Your task to perform on an android device: Go to settings Image 0: 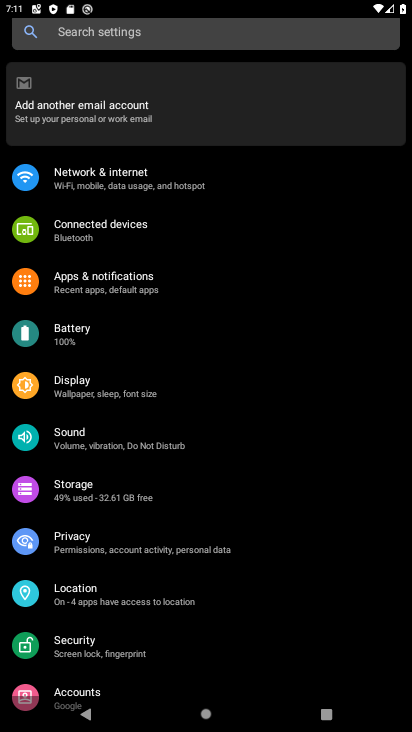
Step 0: task complete